Your task to perform on an android device: turn on priority inbox in the gmail app Image 0: 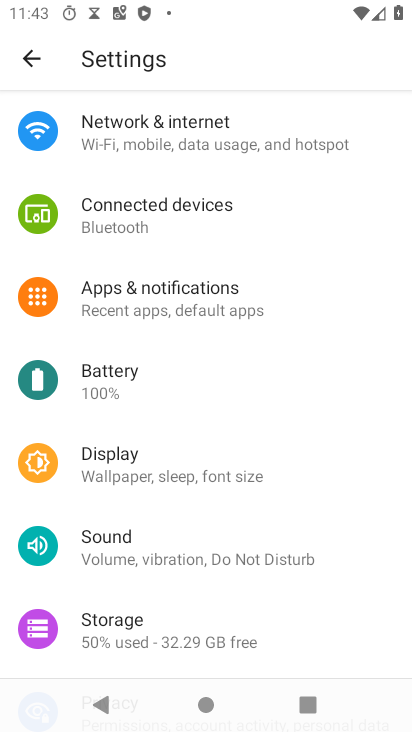
Step 0: press home button
Your task to perform on an android device: turn on priority inbox in the gmail app Image 1: 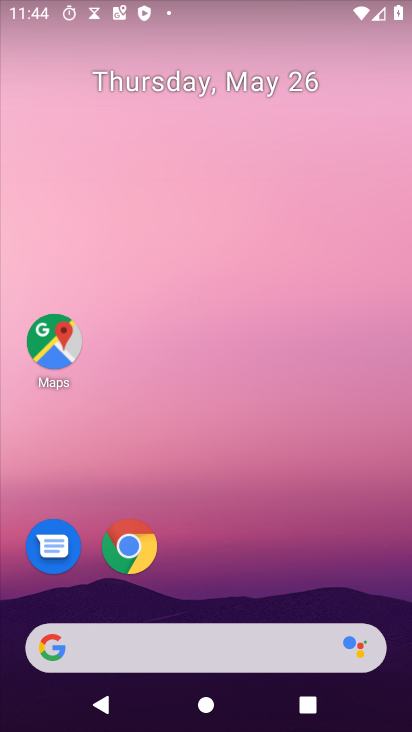
Step 1: drag from (368, 571) to (360, 113)
Your task to perform on an android device: turn on priority inbox in the gmail app Image 2: 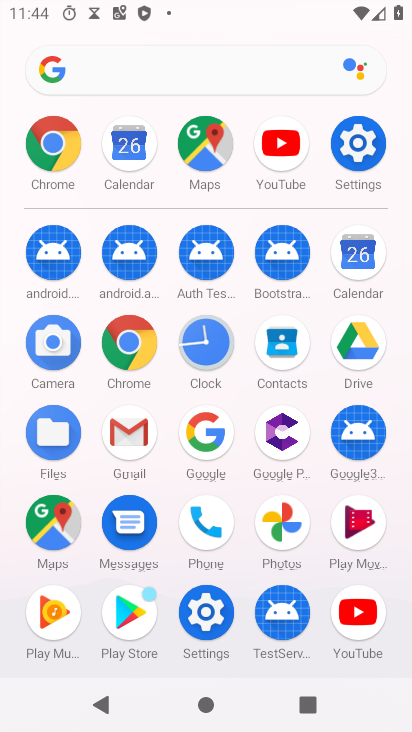
Step 2: click (127, 435)
Your task to perform on an android device: turn on priority inbox in the gmail app Image 3: 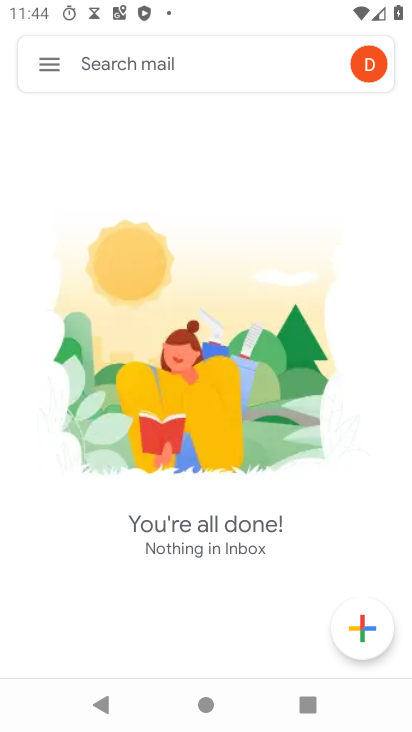
Step 3: click (63, 71)
Your task to perform on an android device: turn on priority inbox in the gmail app Image 4: 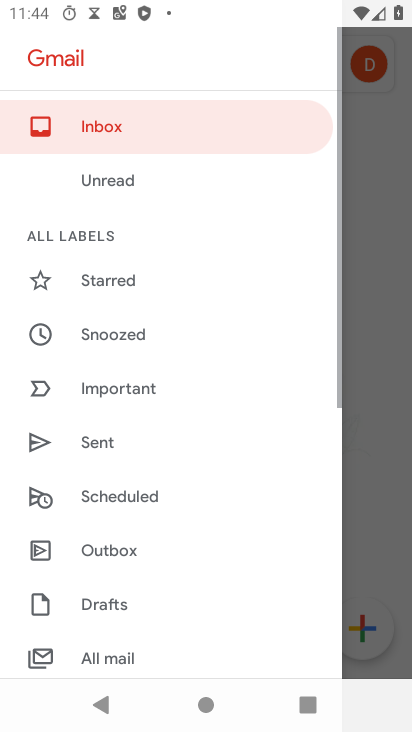
Step 4: drag from (133, 586) to (205, 198)
Your task to perform on an android device: turn on priority inbox in the gmail app Image 5: 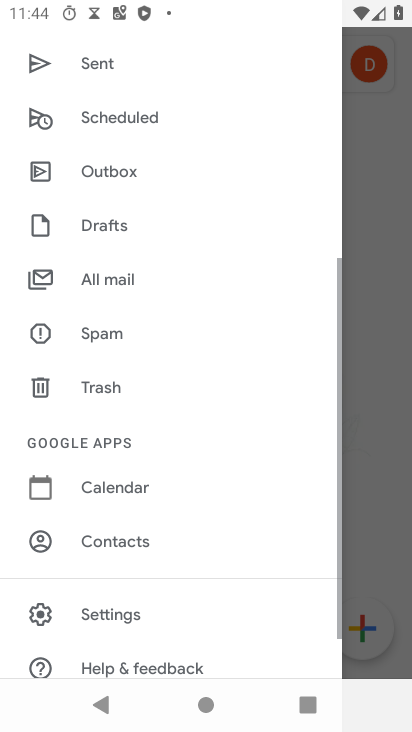
Step 5: drag from (187, 620) to (247, 363)
Your task to perform on an android device: turn on priority inbox in the gmail app Image 6: 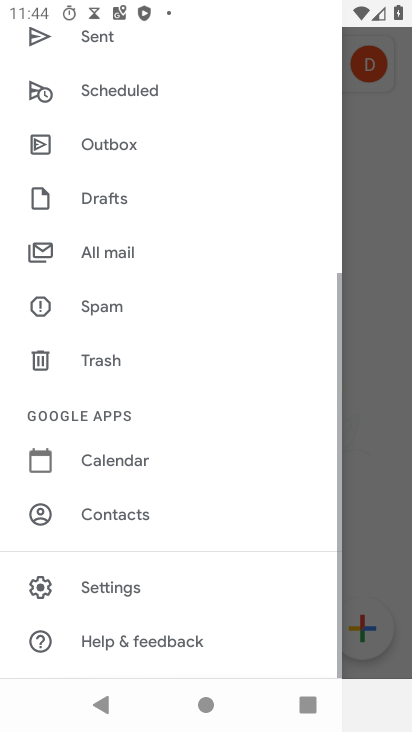
Step 6: click (123, 581)
Your task to perform on an android device: turn on priority inbox in the gmail app Image 7: 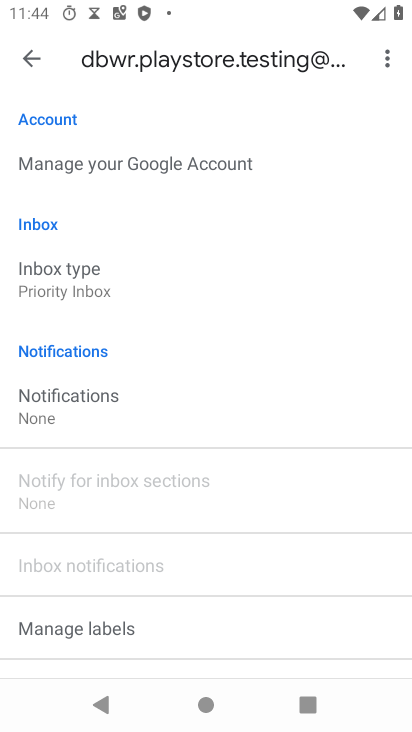
Step 7: click (83, 292)
Your task to perform on an android device: turn on priority inbox in the gmail app Image 8: 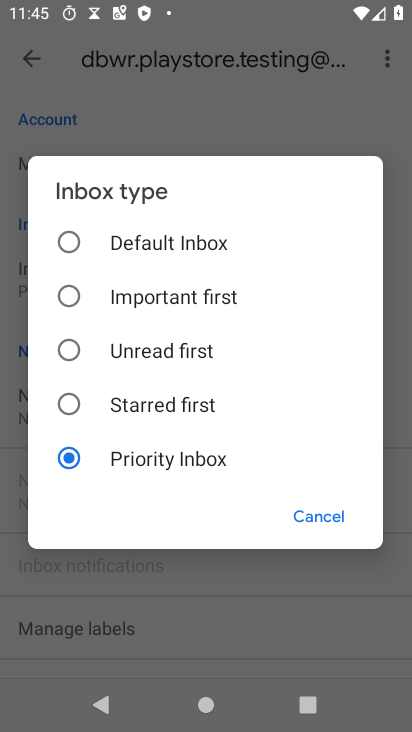
Step 8: task complete